Your task to perform on an android device: open wifi settings Image 0: 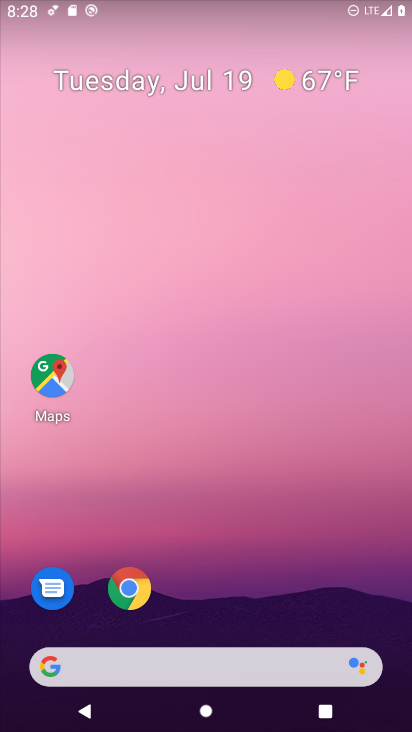
Step 0: drag from (331, 519) to (379, 118)
Your task to perform on an android device: open wifi settings Image 1: 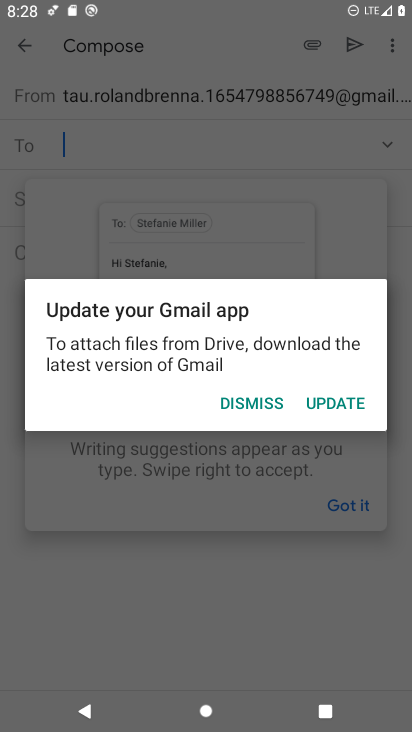
Step 1: press home button
Your task to perform on an android device: open wifi settings Image 2: 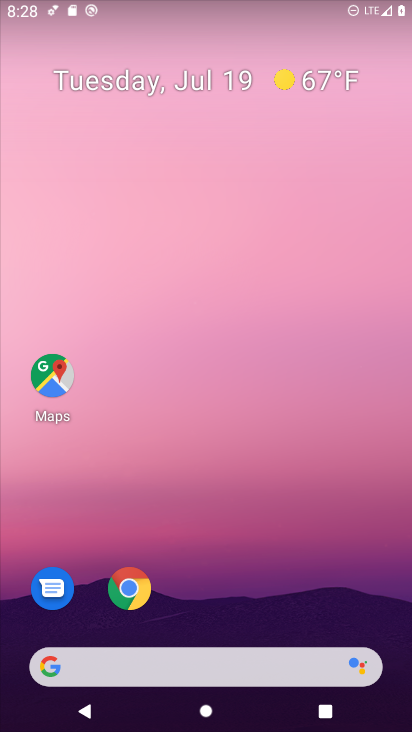
Step 2: drag from (361, 577) to (392, 68)
Your task to perform on an android device: open wifi settings Image 3: 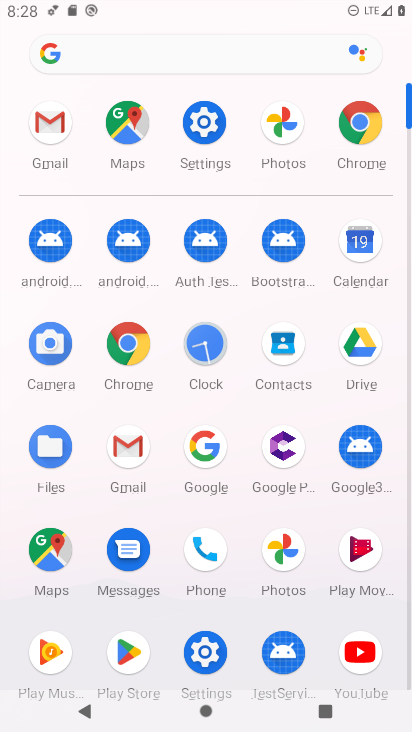
Step 3: click (206, 131)
Your task to perform on an android device: open wifi settings Image 4: 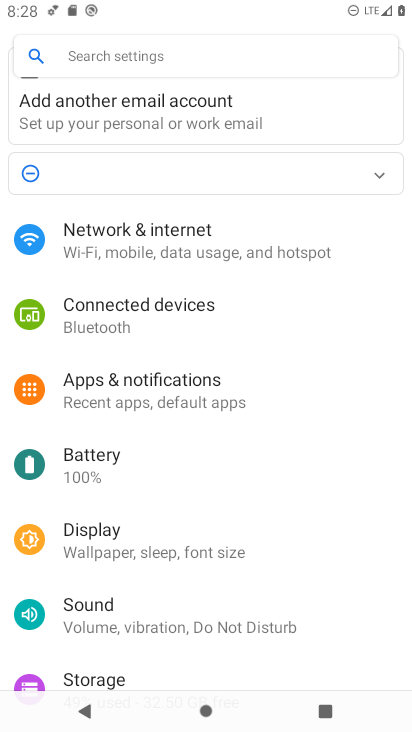
Step 4: drag from (317, 483) to (338, 392)
Your task to perform on an android device: open wifi settings Image 5: 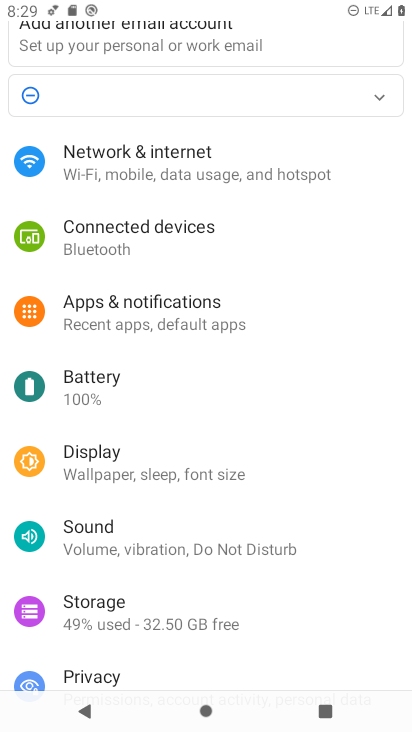
Step 5: drag from (354, 563) to (373, 423)
Your task to perform on an android device: open wifi settings Image 6: 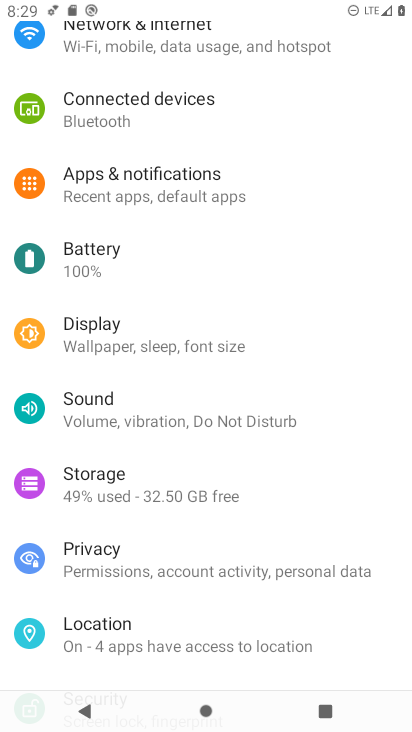
Step 6: drag from (354, 619) to (363, 437)
Your task to perform on an android device: open wifi settings Image 7: 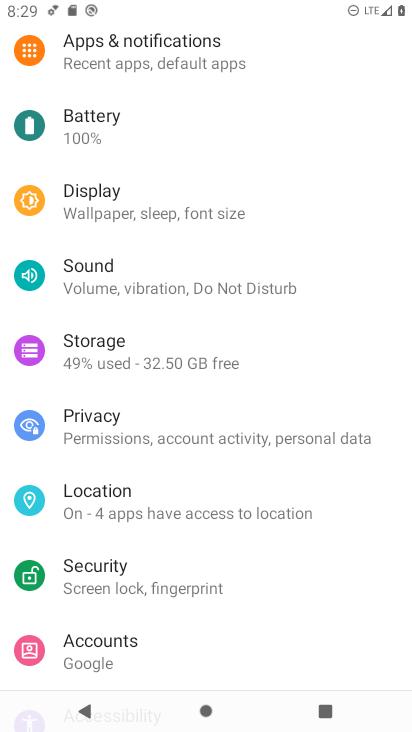
Step 7: drag from (357, 572) to (366, 405)
Your task to perform on an android device: open wifi settings Image 8: 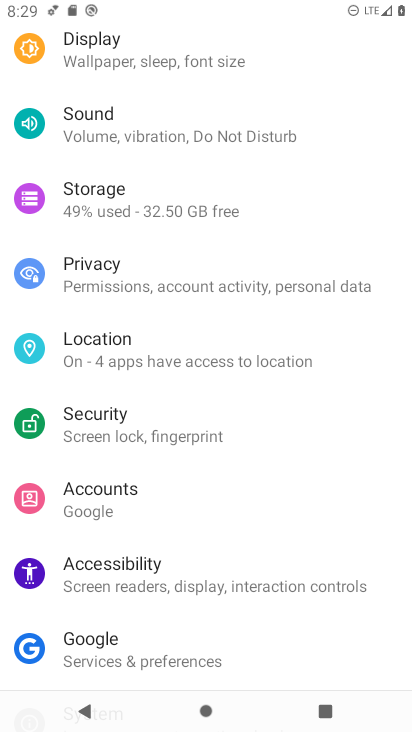
Step 8: drag from (341, 527) to (347, 408)
Your task to perform on an android device: open wifi settings Image 9: 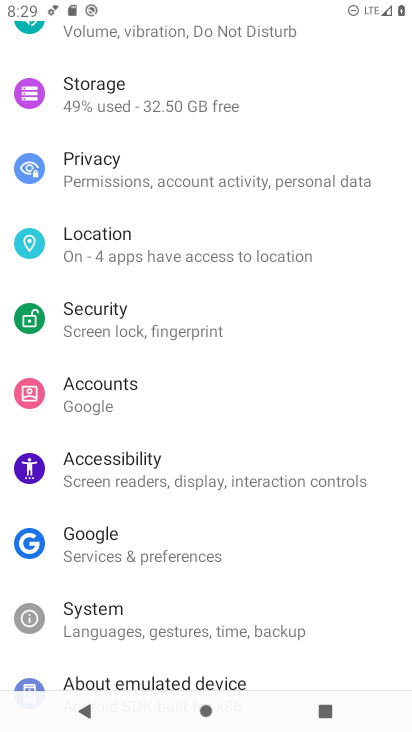
Step 9: drag from (350, 272) to (344, 401)
Your task to perform on an android device: open wifi settings Image 10: 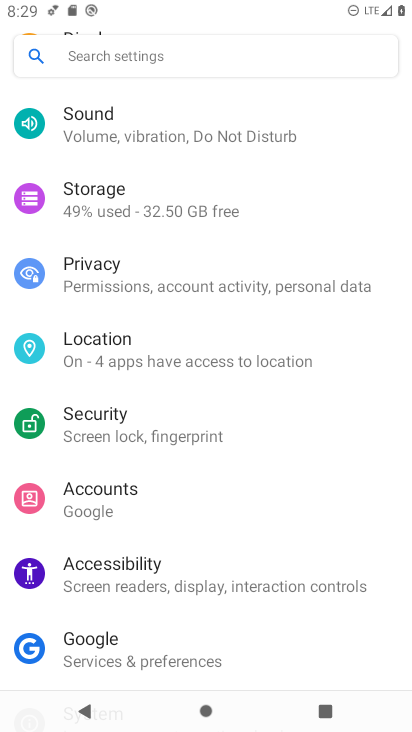
Step 10: drag from (347, 208) to (350, 341)
Your task to perform on an android device: open wifi settings Image 11: 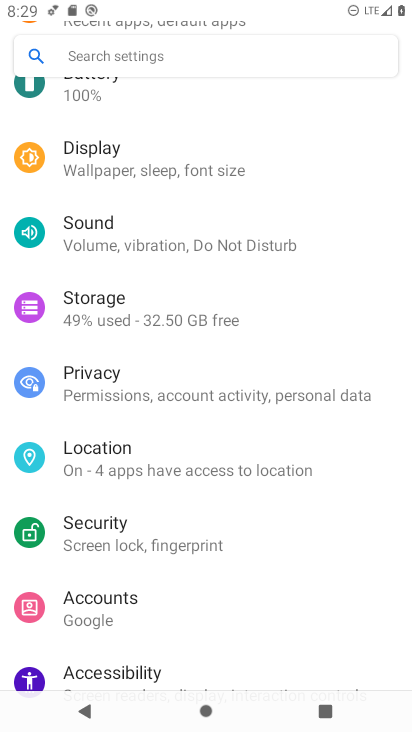
Step 11: drag from (349, 183) to (346, 342)
Your task to perform on an android device: open wifi settings Image 12: 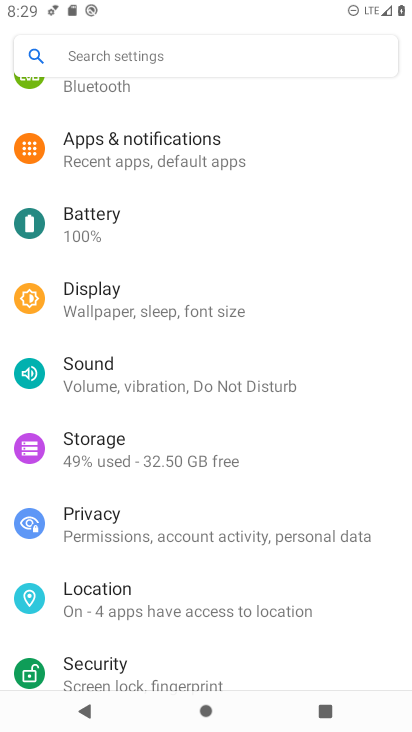
Step 12: drag from (344, 151) to (339, 335)
Your task to perform on an android device: open wifi settings Image 13: 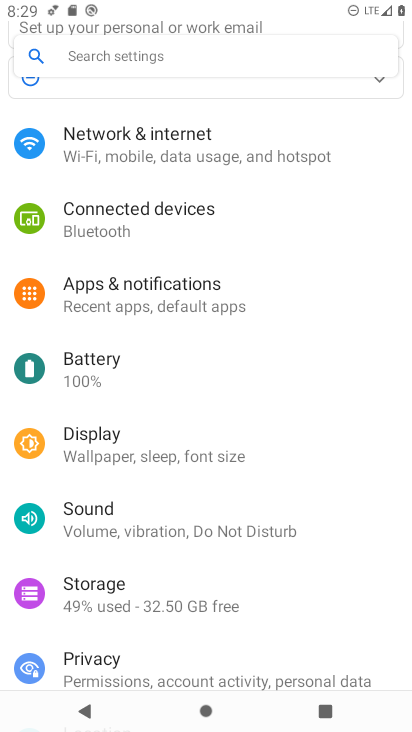
Step 13: drag from (359, 131) to (347, 406)
Your task to perform on an android device: open wifi settings Image 14: 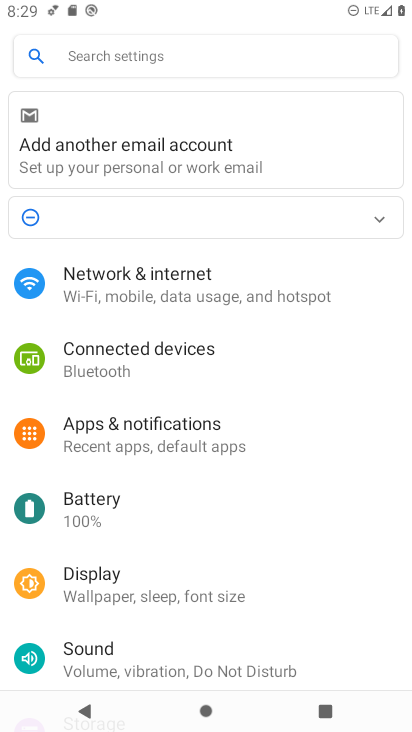
Step 14: click (193, 280)
Your task to perform on an android device: open wifi settings Image 15: 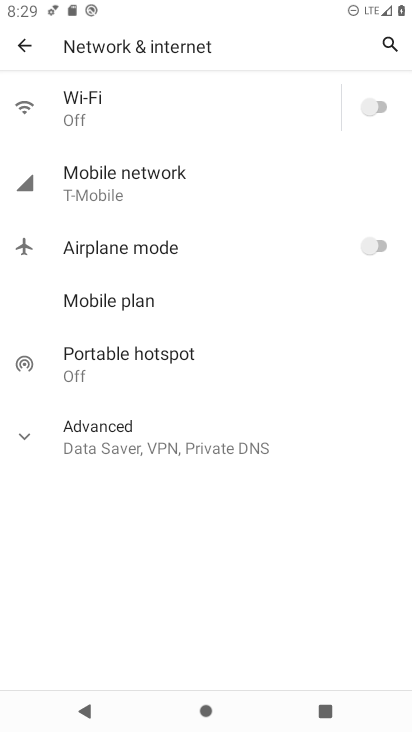
Step 15: click (110, 103)
Your task to perform on an android device: open wifi settings Image 16: 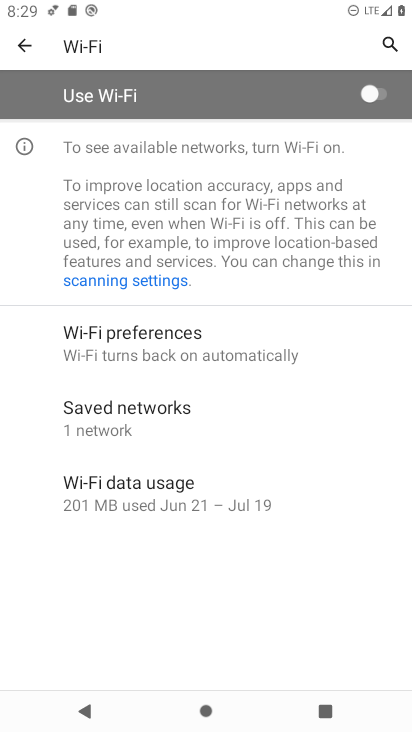
Step 16: task complete